Your task to perform on an android device: toggle pop-ups in chrome Image 0: 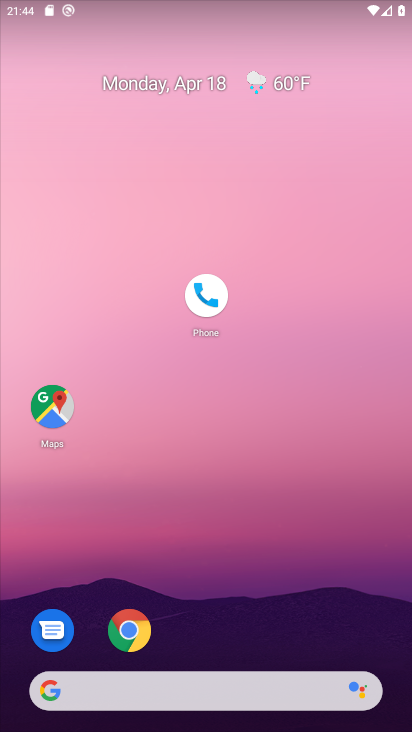
Step 0: drag from (269, 407) to (285, 140)
Your task to perform on an android device: toggle pop-ups in chrome Image 1: 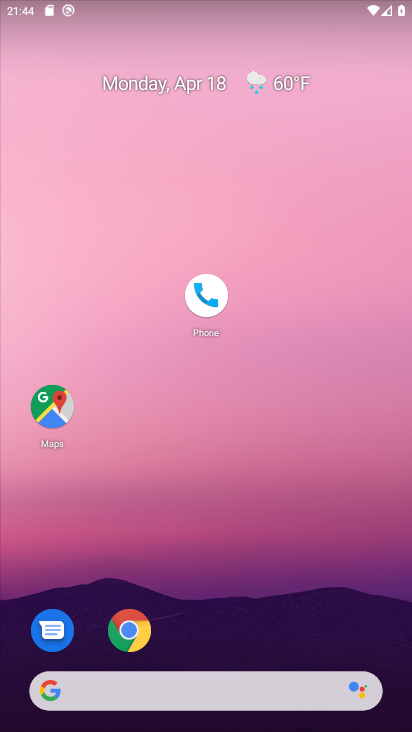
Step 1: drag from (257, 633) to (339, 163)
Your task to perform on an android device: toggle pop-ups in chrome Image 2: 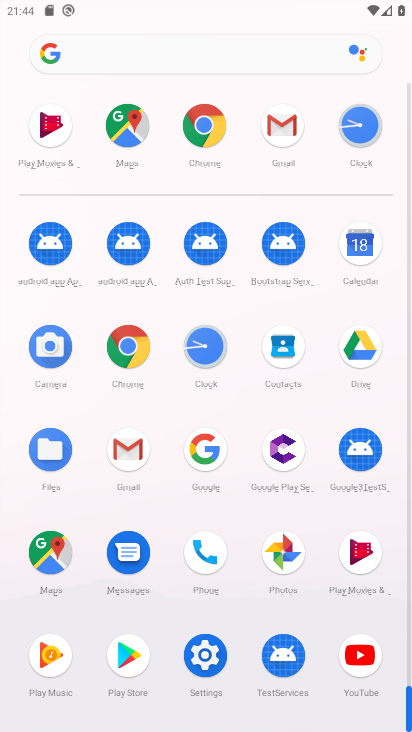
Step 2: click (125, 351)
Your task to perform on an android device: toggle pop-ups in chrome Image 3: 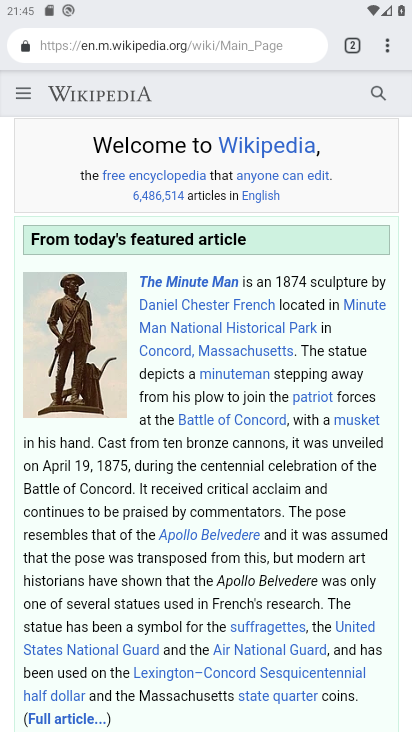
Step 3: click (387, 45)
Your task to perform on an android device: toggle pop-ups in chrome Image 4: 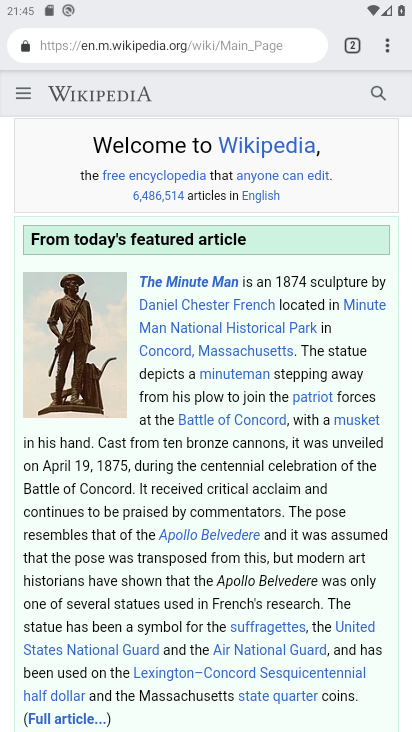
Step 4: drag from (387, 42) to (221, 590)
Your task to perform on an android device: toggle pop-ups in chrome Image 5: 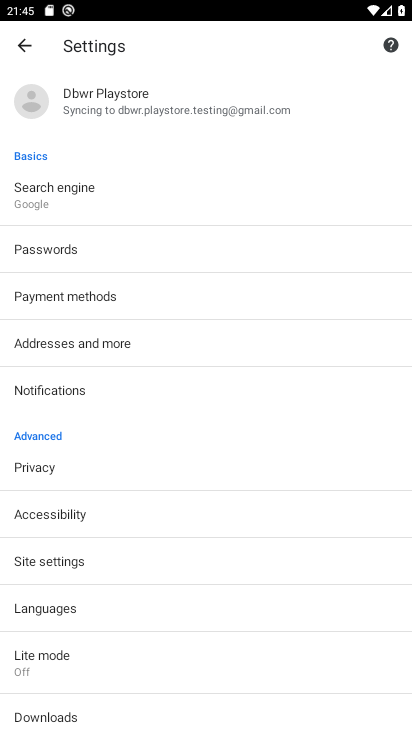
Step 5: drag from (137, 688) to (245, 386)
Your task to perform on an android device: toggle pop-ups in chrome Image 6: 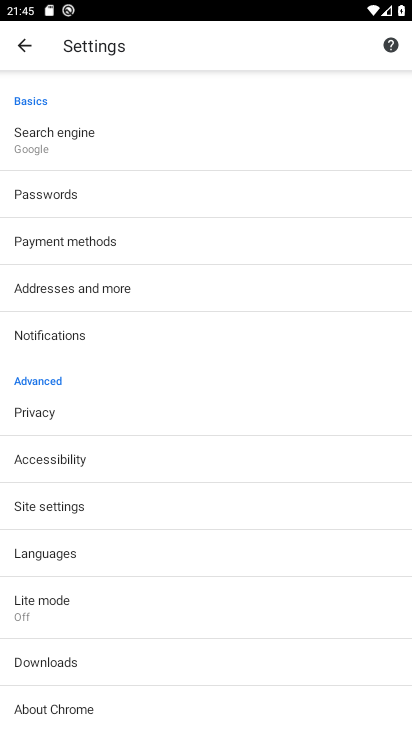
Step 6: click (89, 511)
Your task to perform on an android device: toggle pop-ups in chrome Image 7: 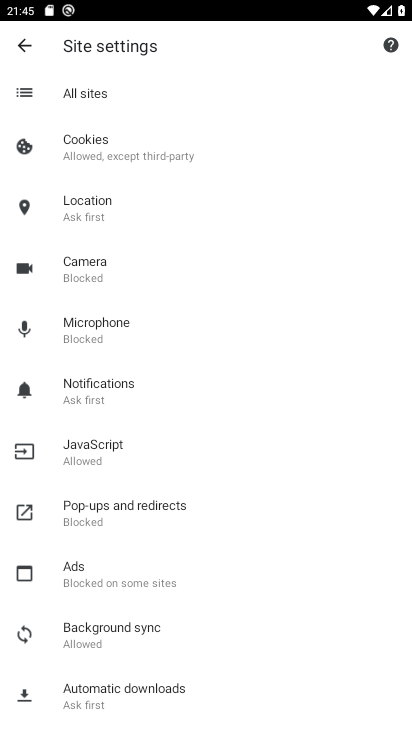
Step 7: click (108, 525)
Your task to perform on an android device: toggle pop-ups in chrome Image 8: 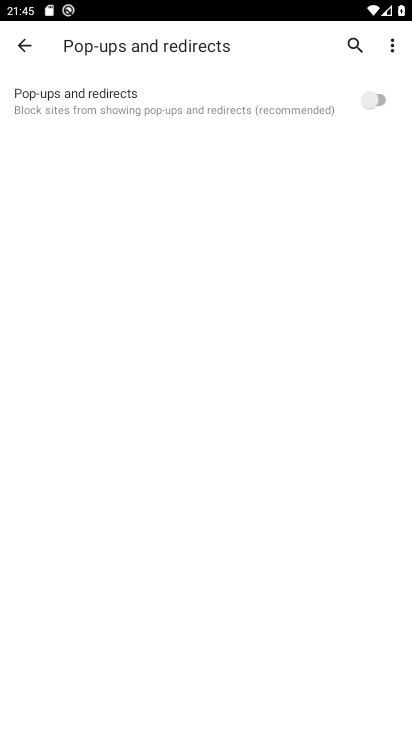
Step 8: click (374, 92)
Your task to perform on an android device: toggle pop-ups in chrome Image 9: 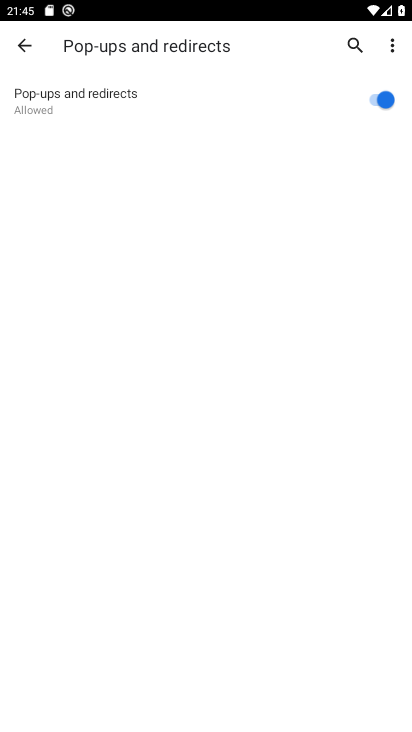
Step 9: task complete